Your task to perform on an android device: When is my next meeting? Image 0: 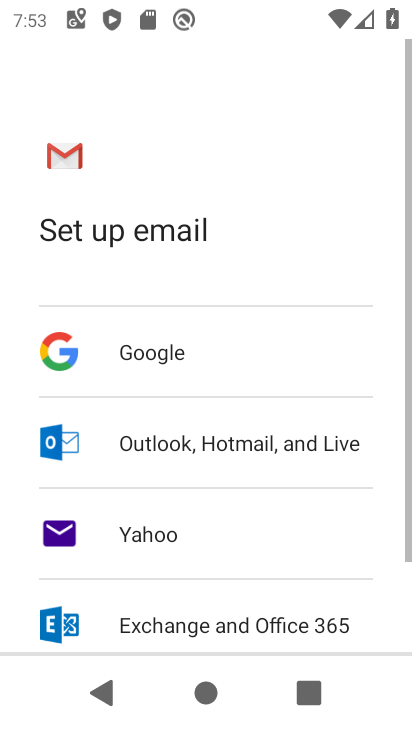
Step 0: press home button
Your task to perform on an android device: When is my next meeting? Image 1: 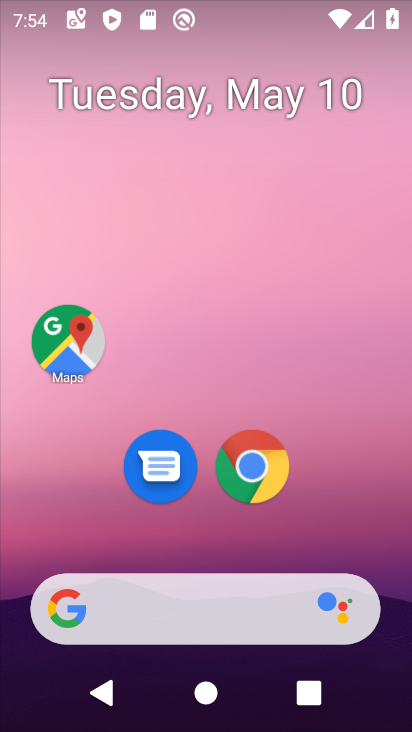
Step 1: drag from (336, 524) to (338, 41)
Your task to perform on an android device: When is my next meeting? Image 2: 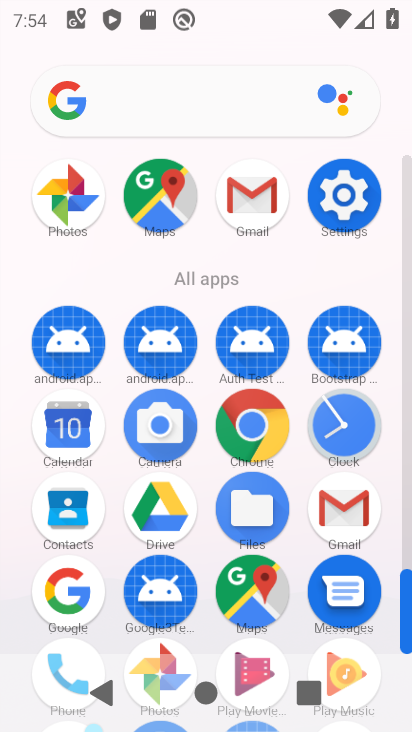
Step 2: click (84, 431)
Your task to perform on an android device: When is my next meeting? Image 3: 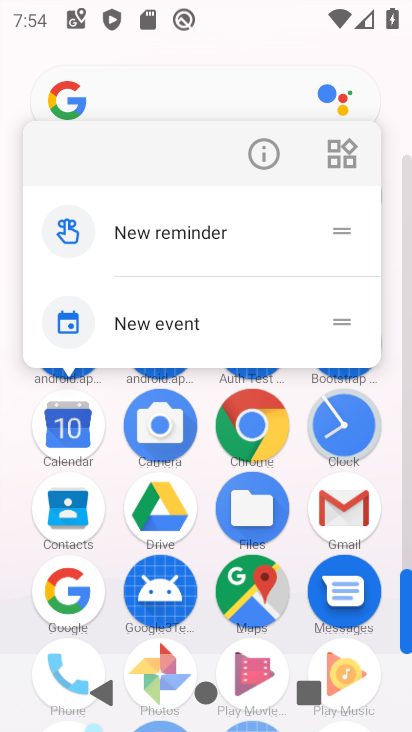
Step 3: click (81, 424)
Your task to perform on an android device: When is my next meeting? Image 4: 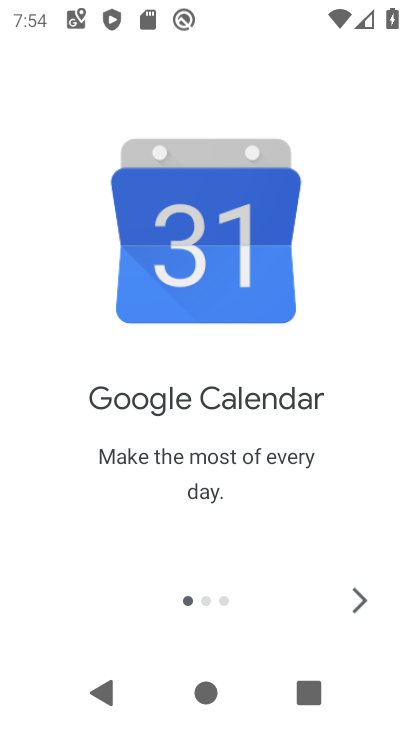
Step 4: click (350, 581)
Your task to perform on an android device: When is my next meeting? Image 5: 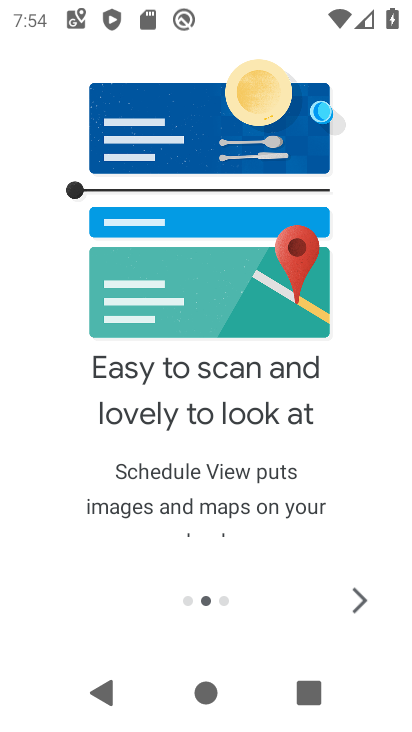
Step 5: click (366, 587)
Your task to perform on an android device: When is my next meeting? Image 6: 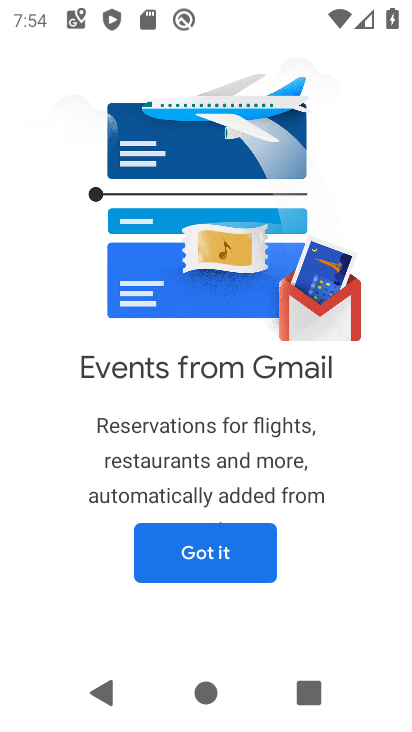
Step 6: click (232, 561)
Your task to perform on an android device: When is my next meeting? Image 7: 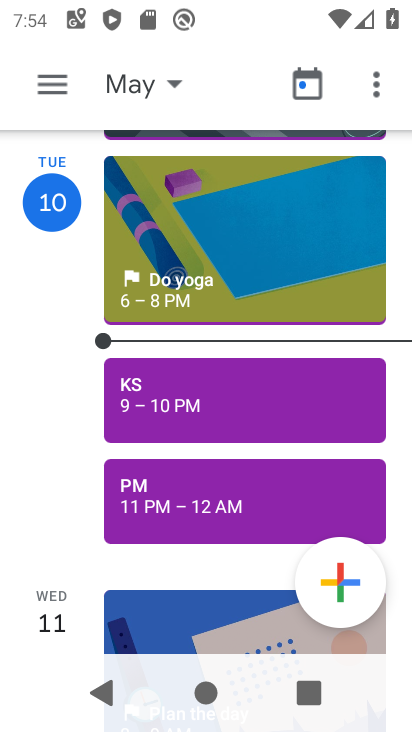
Step 7: click (155, 77)
Your task to perform on an android device: When is my next meeting? Image 8: 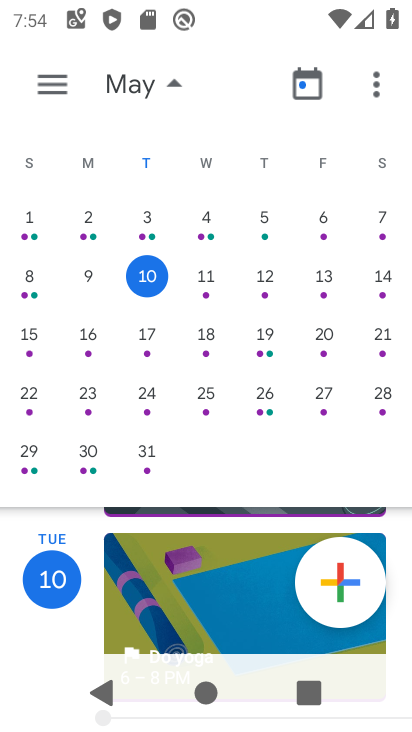
Step 8: click (143, 278)
Your task to perform on an android device: When is my next meeting? Image 9: 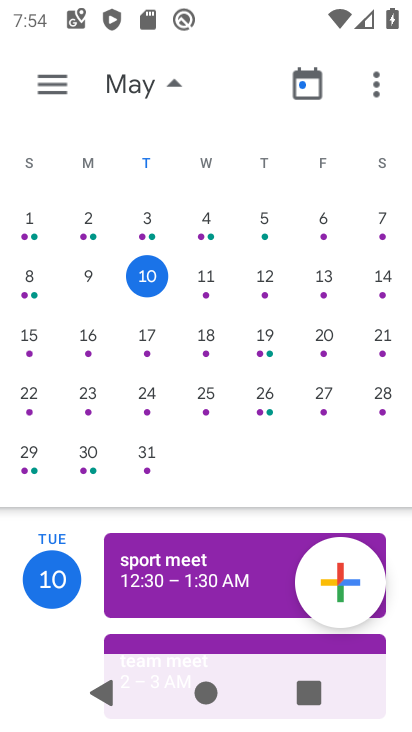
Step 9: task complete